Your task to perform on an android device: Search for vegetarian restaurants on Maps Image 0: 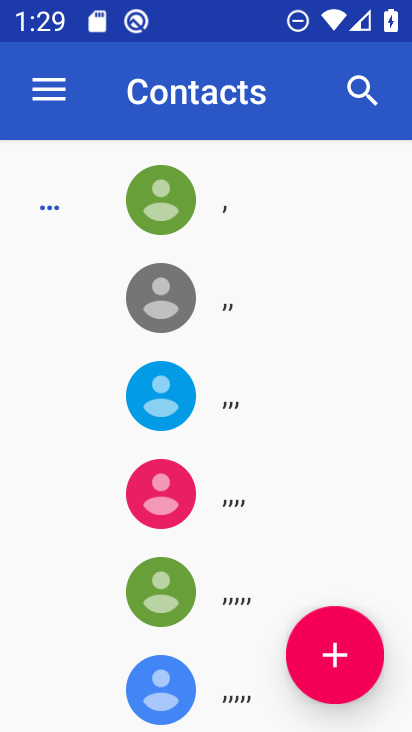
Step 0: press home button
Your task to perform on an android device: Search for vegetarian restaurants on Maps Image 1: 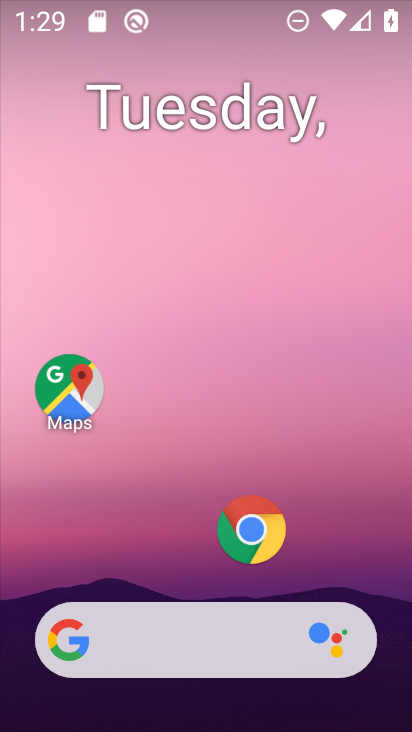
Step 1: click (93, 441)
Your task to perform on an android device: Search for vegetarian restaurants on Maps Image 2: 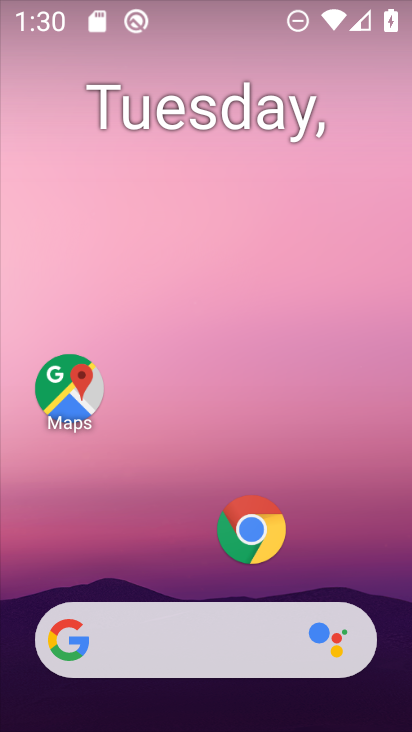
Step 2: click (87, 403)
Your task to perform on an android device: Search for vegetarian restaurants on Maps Image 3: 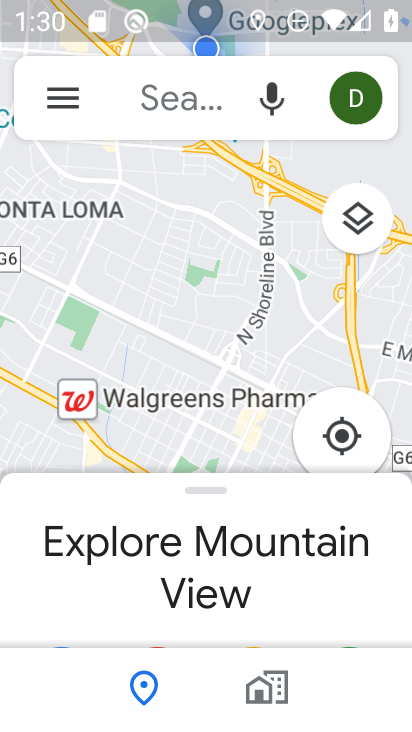
Step 3: click (166, 129)
Your task to perform on an android device: Search for vegetarian restaurants on Maps Image 4: 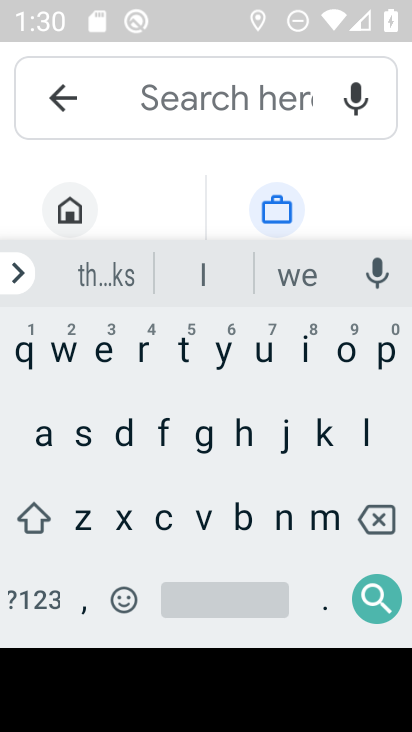
Step 4: click (196, 509)
Your task to perform on an android device: Search for vegetarian restaurants on Maps Image 5: 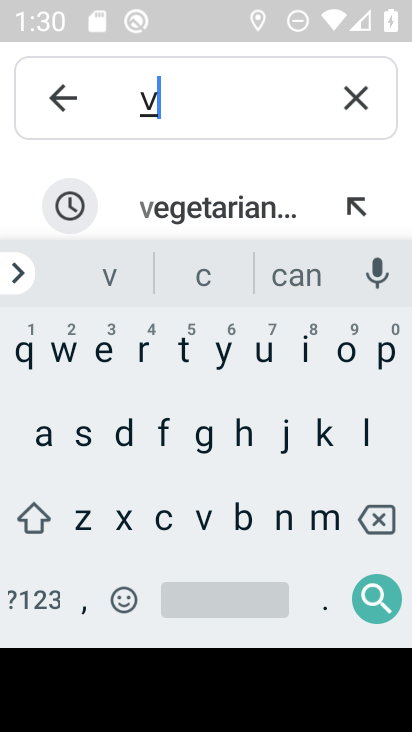
Step 5: click (225, 218)
Your task to perform on an android device: Search for vegetarian restaurants on Maps Image 6: 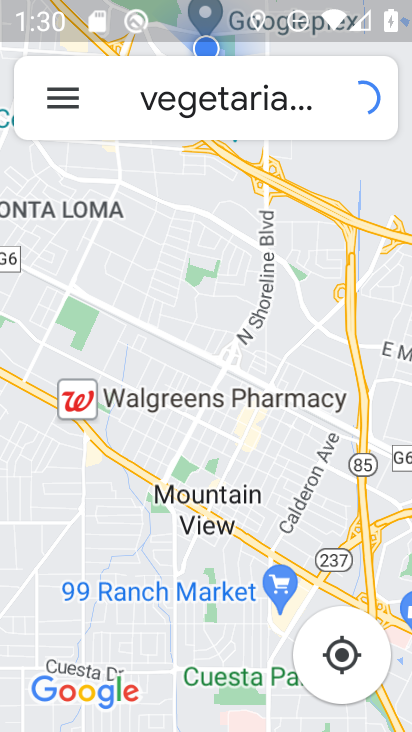
Step 6: task complete